Your task to perform on an android device: toggle airplane mode Image 0: 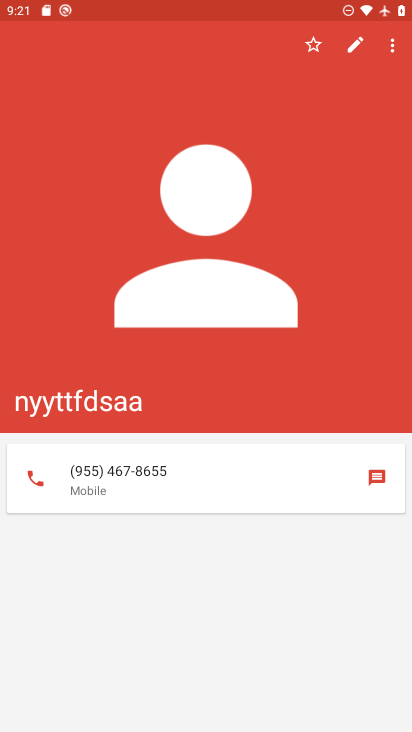
Step 0: press home button
Your task to perform on an android device: toggle airplane mode Image 1: 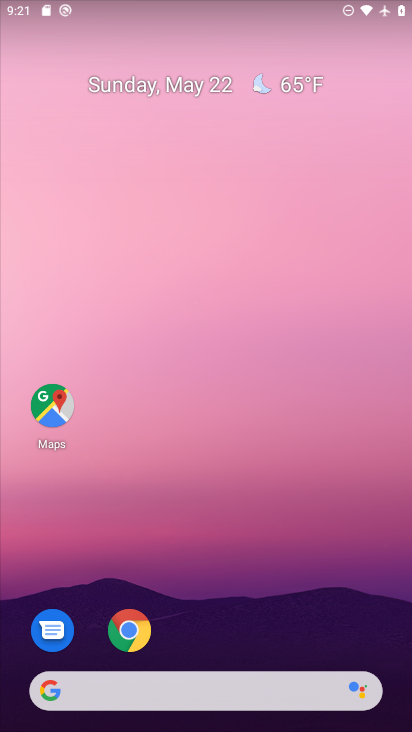
Step 1: drag from (163, 676) to (341, 68)
Your task to perform on an android device: toggle airplane mode Image 2: 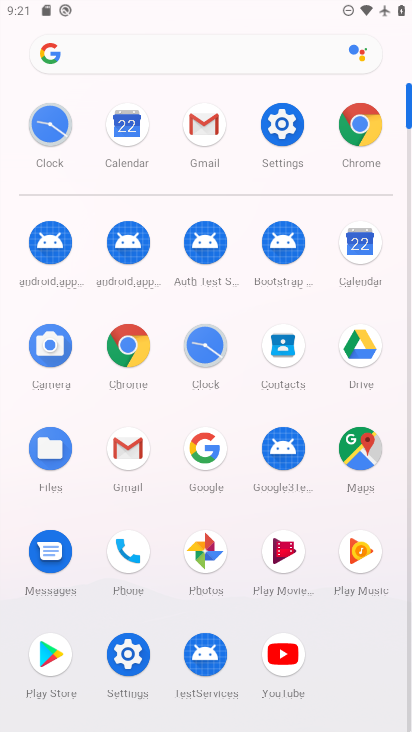
Step 2: click (277, 120)
Your task to perform on an android device: toggle airplane mode Image 3: 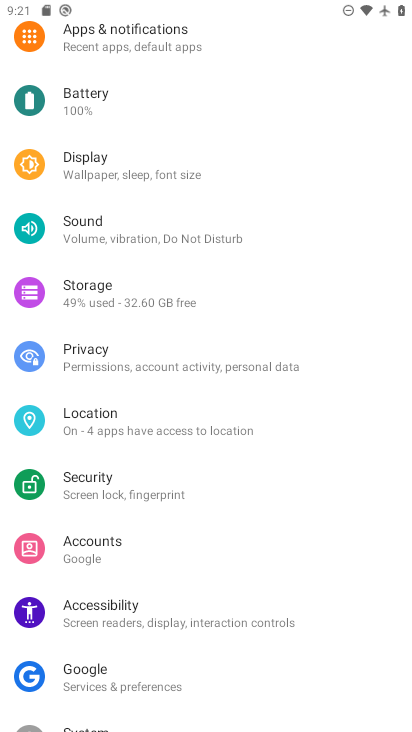
Step 3: drag from (296, 124) to (317, 561)
Your task to perform on an android device: toggle airplane mode Image 4: 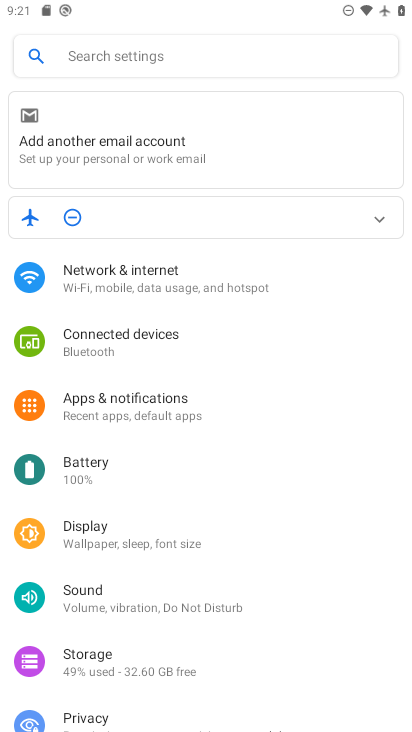
Step 4: click (161, 274)
Your task to perform on an android device: toggle airplane mode Image 5: 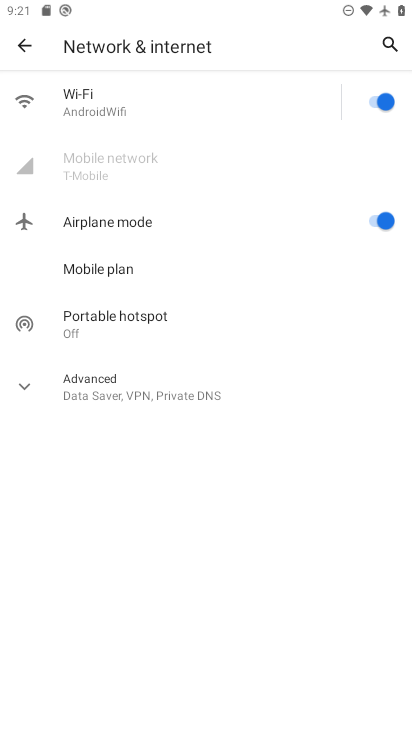
Step 5: click (373, 218)
Your task to perform on an android device: toggle airplane mode Image 6: 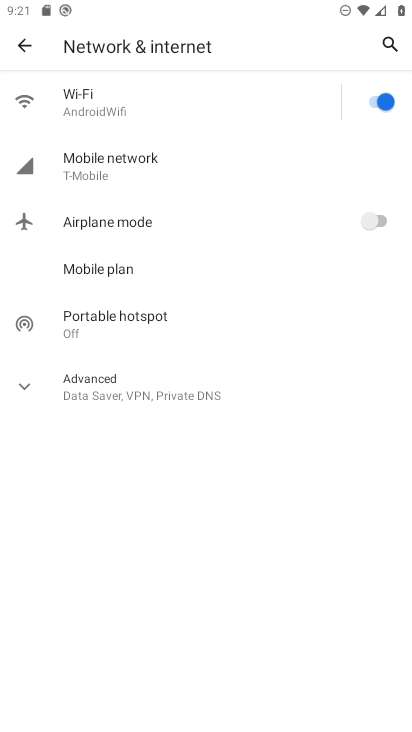
Step 6: task complete